Your task to perform on an android device: turn notification dots on Image 0: 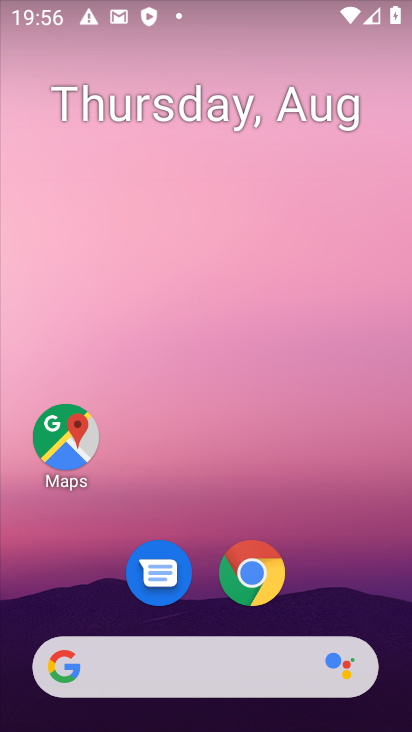
Step 0: drag from (243, 636) to (211, 190)
Your task to perform on an android device: turn notification dots on Image 1: 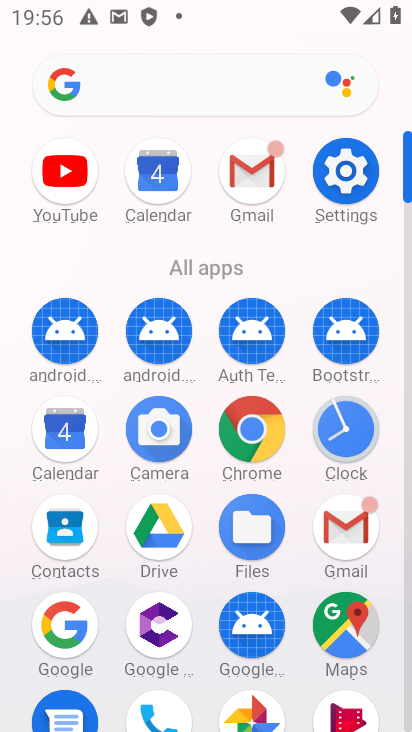
Step 1: click (358, 185)
Your task to perform on an android device: turn notification dots on Image 2: 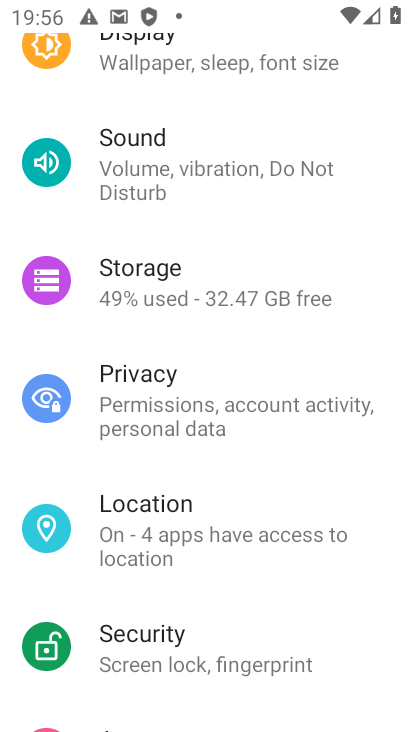
Step 2: drag from (193, 192) to (255, 629)
Your task to perform on an android device: turn notification dots on Image 3: 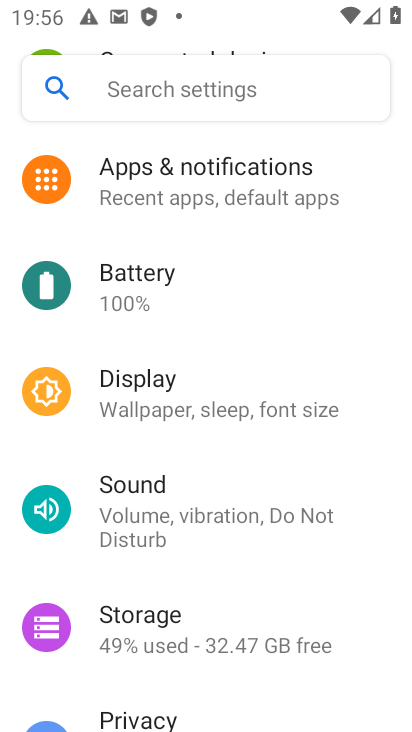
Step 3: click (188, 180)
Your task to perform on an android device: turn notification dots on Image 4: 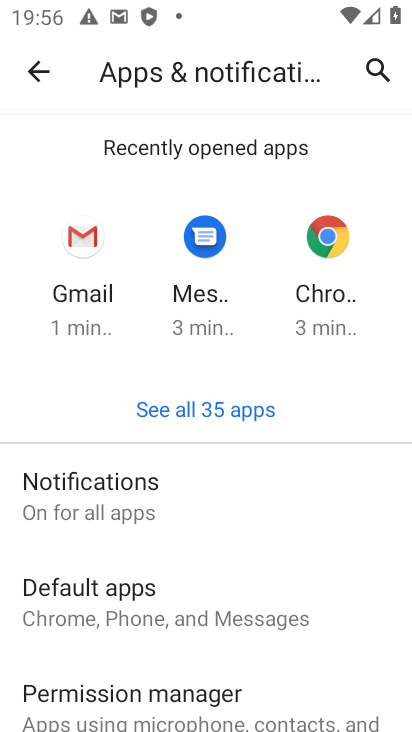
Step 4: click (149, 513)
Your task to perform on an android device: turn notification dots on Image 5: 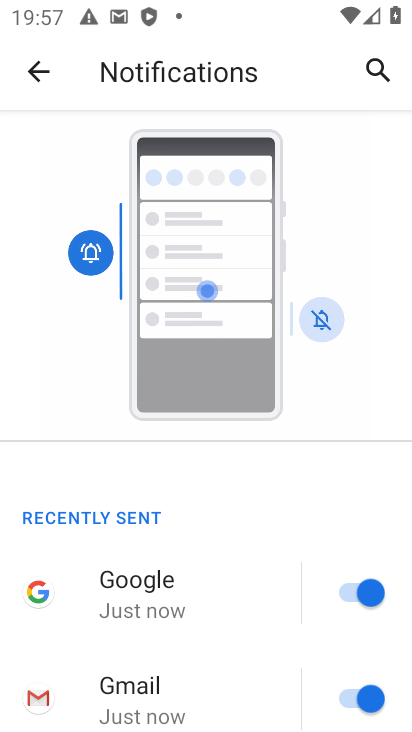
Step 5: drag from (170, 652) to (94, 210)
Your task to perform on an android device: turn notification dots on Image 6: 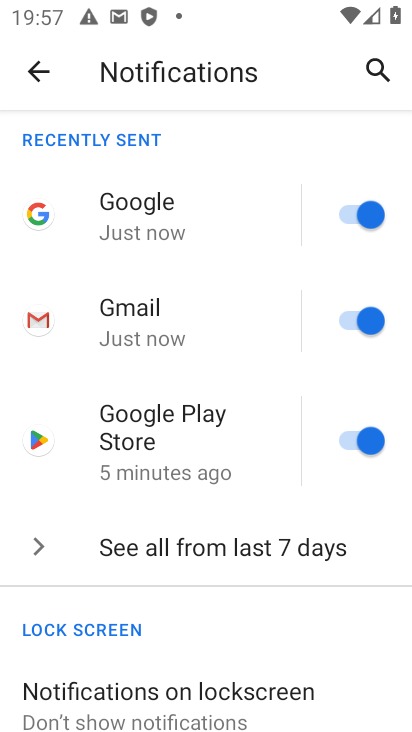
Step 6: drag from (187, 677) to (237, 219)
Your task to perform on an android device: turn notification dots on Image 7: 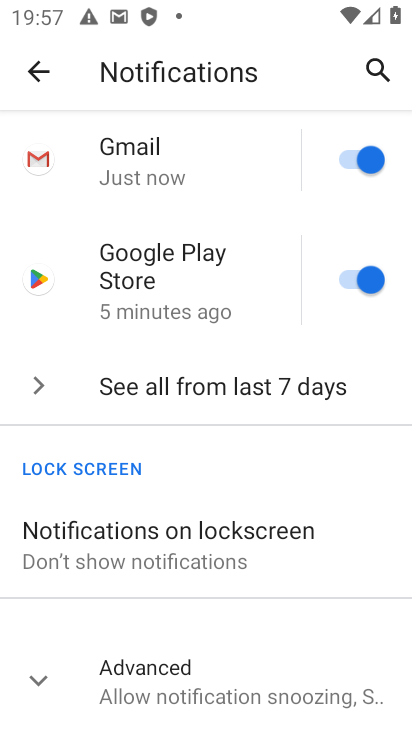
Step 7: click (162, 701)
Your task to perform on an android device: turn notification dots on Image 8: 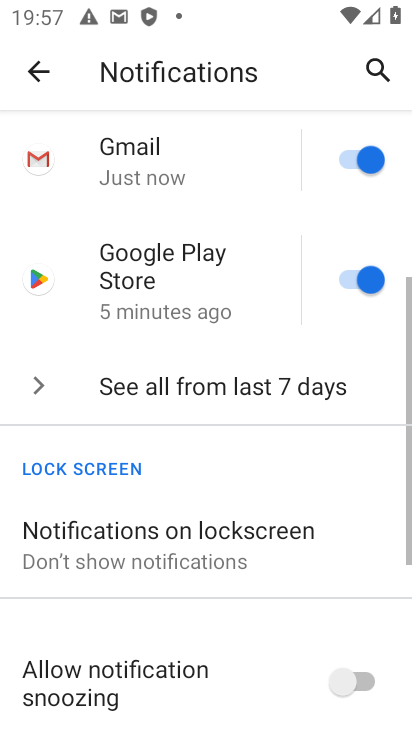
Step 8: task complete